Your task to perform on an android device: turn off notifications settings in the gmail app Image 0: 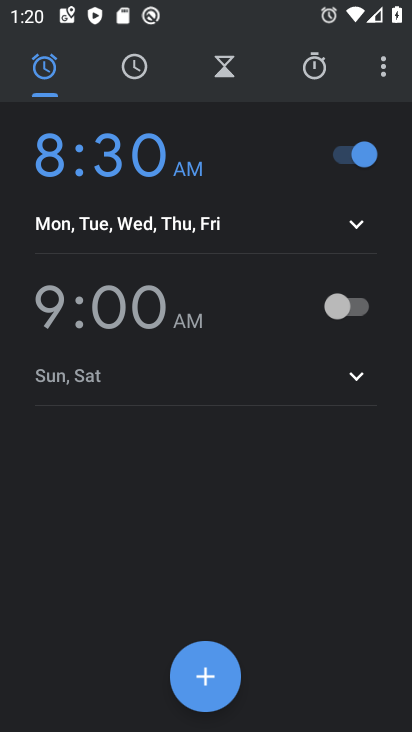
Step 0: press home button
Your task to perform on an android device: turn off notifications settings in the gmail app Image 1: 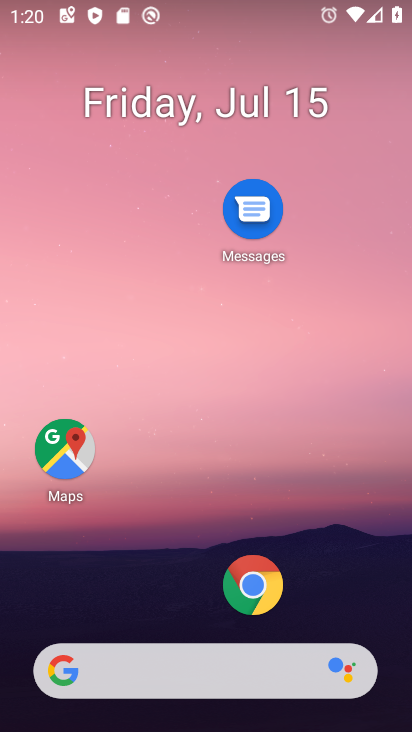
Step 1: drag from (199, 645) to (321, 79)
Your task to perform on an android device: turn off notifications settings in the gmail app Image 2: 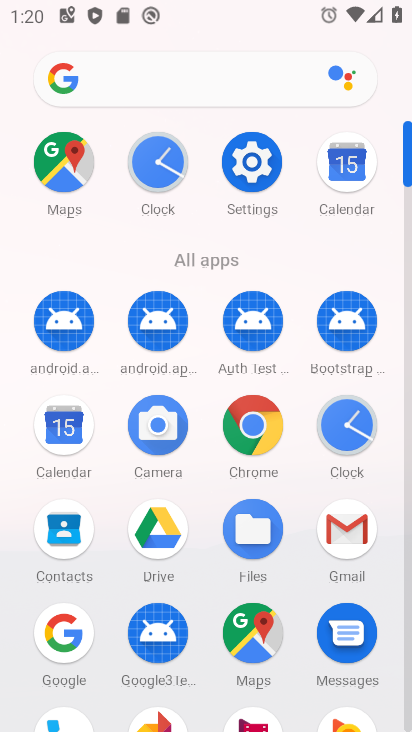
Step 2: click (342, 539)
Your task to perform on an android device: turn off notifications settings in the gmail app Image 3: 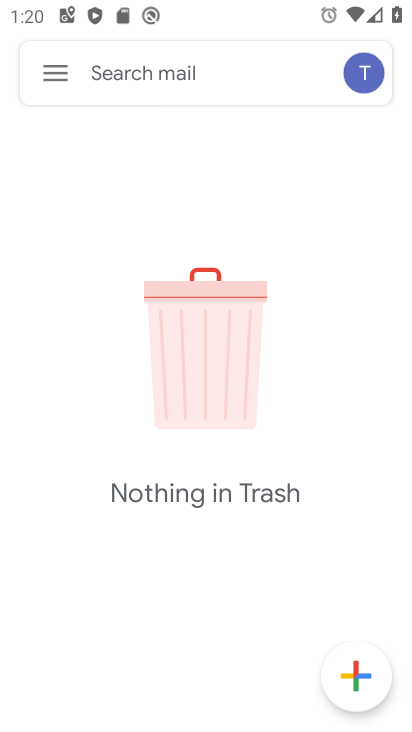
Step 3: click (46, 67)
Your task to perform on an android device: turn off notifications settings in the gmail app Image 4: 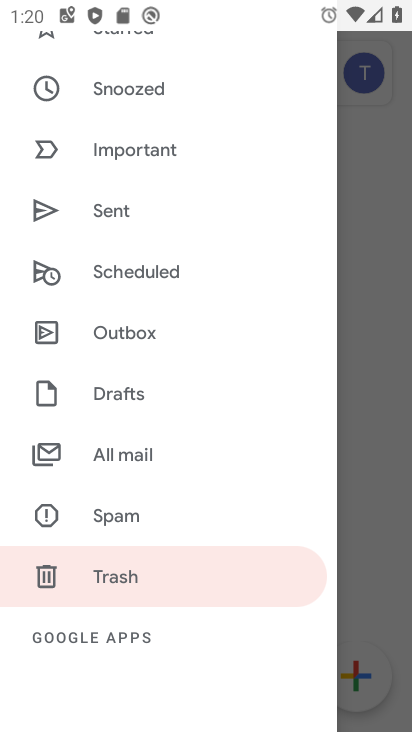
Step 4: drag from (212, 640) to (293, 90)
Your task to perform on an android device: turn off notifications settings in the gmail app Image 5: 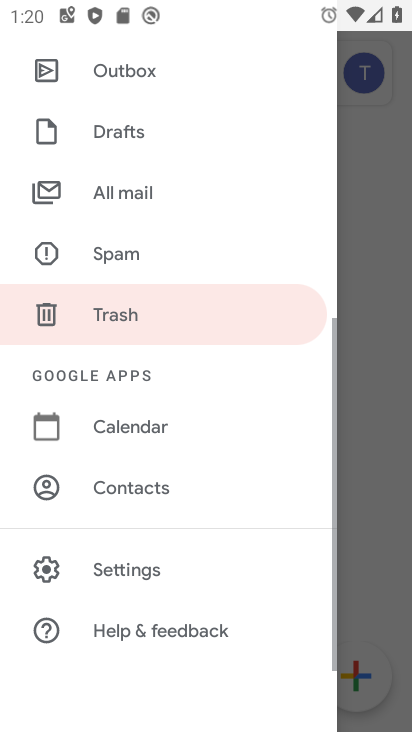
Step 5: click (147, 569)
Your task to perform on an android device: turn off notifications settings in the gmail app Image 6: 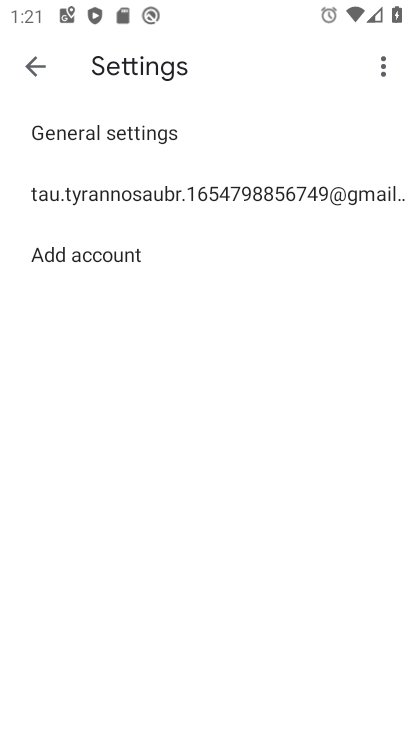
Step 6: click (215, 193)
Your task to perform on an android device: turn off notifications settings in the gmail app Image 7: 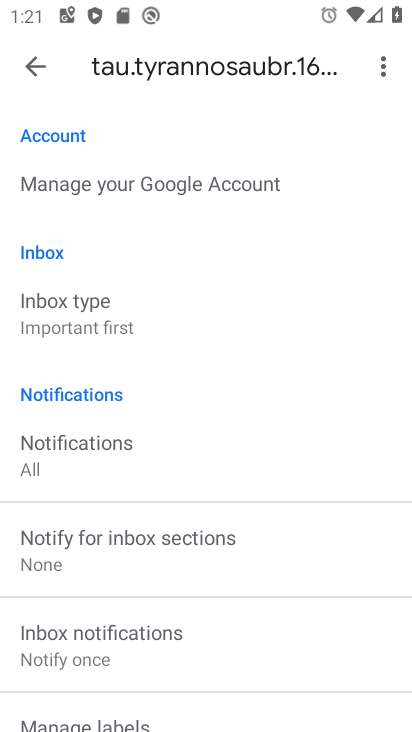
Step 7: drag from (200, 629) to (273, 287)
Your task to perform on an android device: turn off notifications settings in the gmail app Image 8: 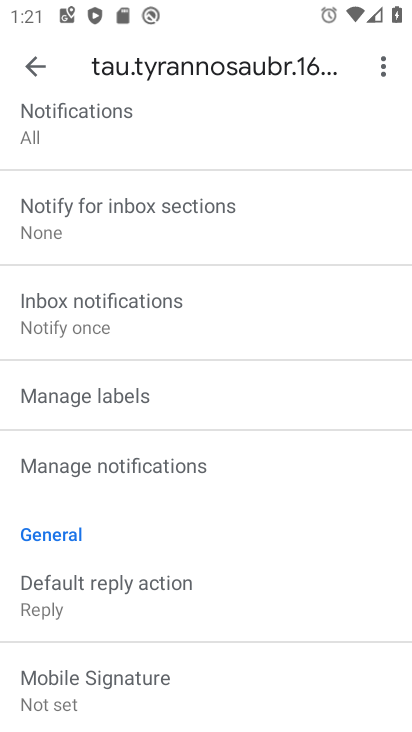
Step 8: click (72, 140)
Your task to perform on an android device: turn off notifications settings in the gmail app Image 9: 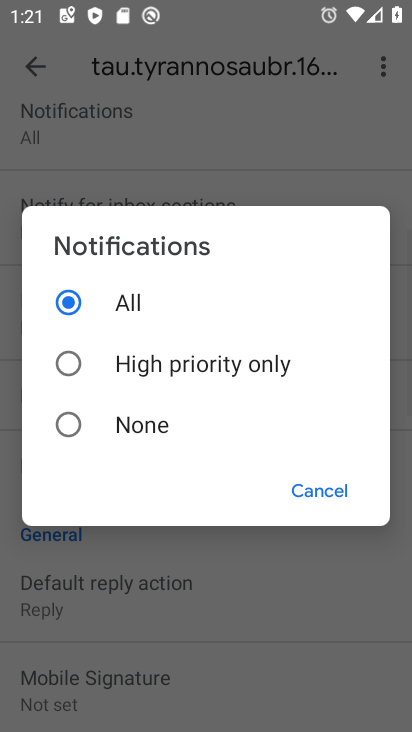
Step 9: click (73, 426)
Your task to perform on an android device: turn off notifications settings in the gmail app Image 10: 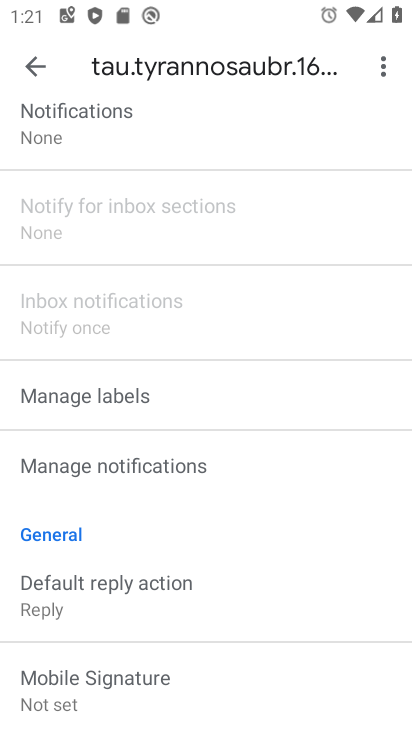
Step 10: task complete